Your task to perform on an android device: Open eBay Image 0: 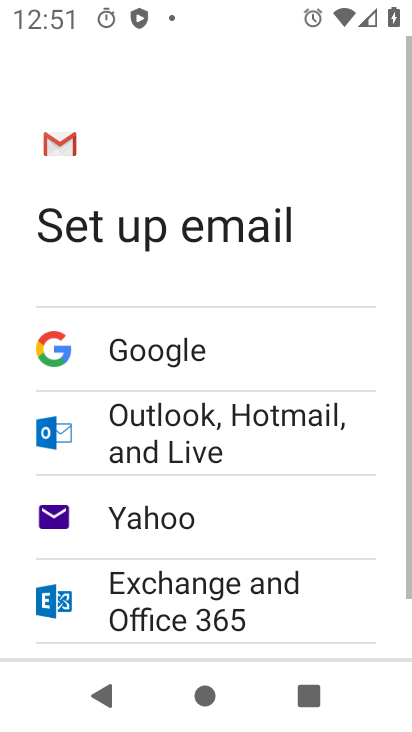
Step 0: press home button
Your task to perform on an android device: Open eBay Image 1: 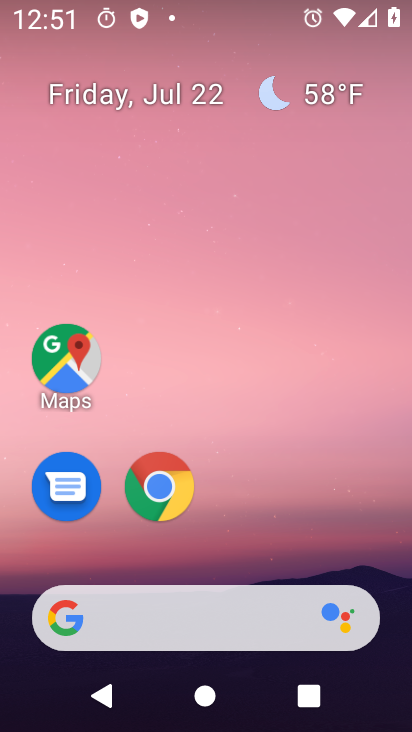
Step 1: drag from (376, 558) to (362, 180)
Your task to perform on an android device: Open eBay Image 2: 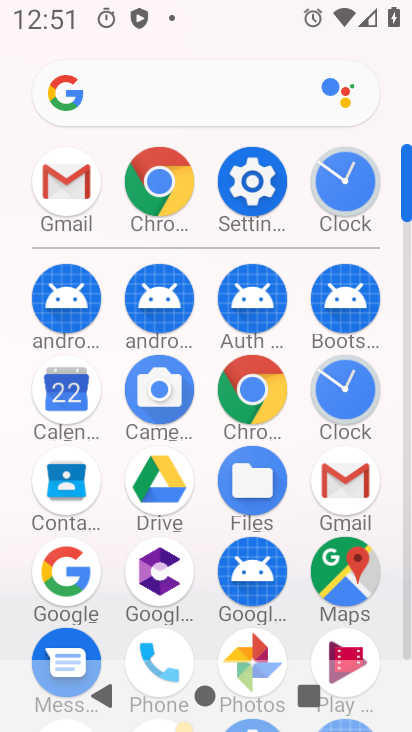
Step 2: click (260, 396)
Your task to perform on an android device: Open eBay Image 3: 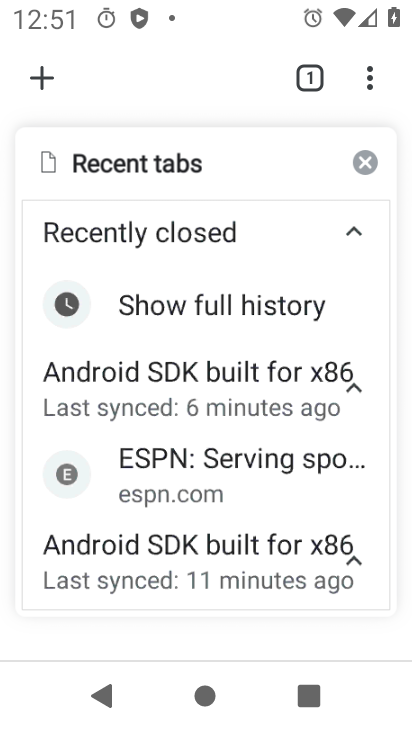
Step 3: press back button
Your task to perform on an android device: Open eBay Image 4: 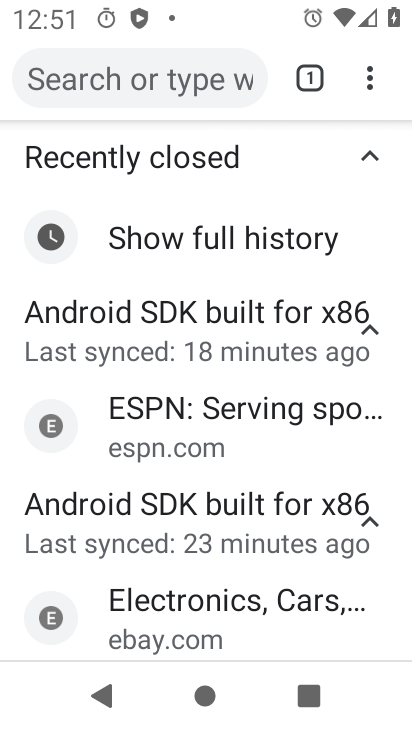
Step 4: click (212, 82)
Your task to perform on an android device: Open eBay Image 5: 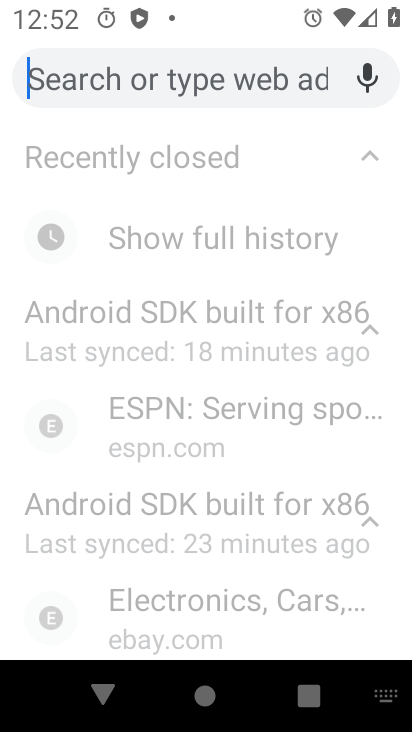
Step 5: type "ebay"
Your task to perform on an android device: Open eBay Image 6: 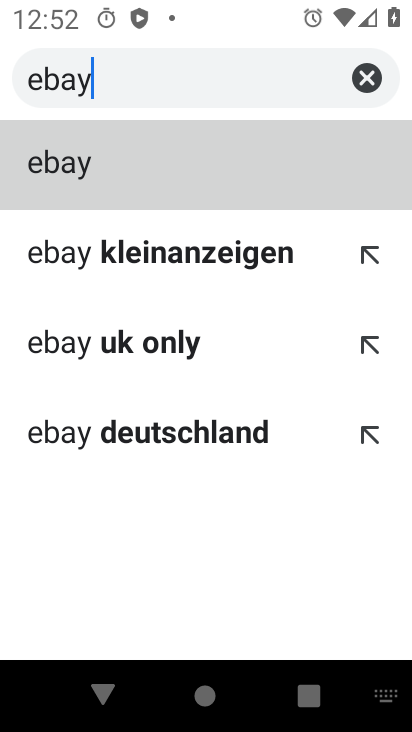
Step 6: click (110, 183)
Your task to perform on an android device: Open eBay Image 7: 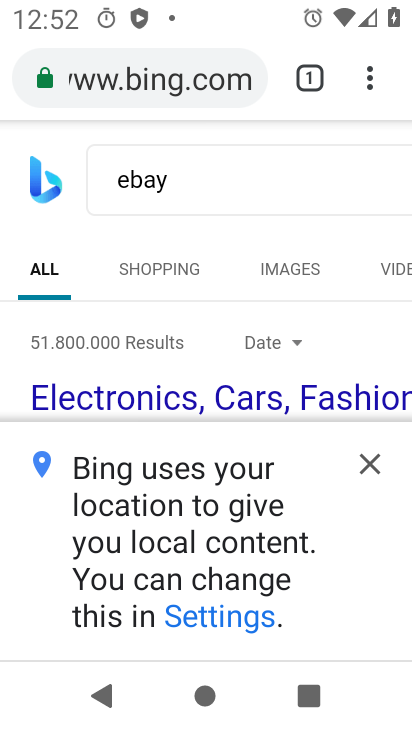
Step 7: task complete